Your task to perform on an android device: Search for sushi restaurants on Maps Image 0: 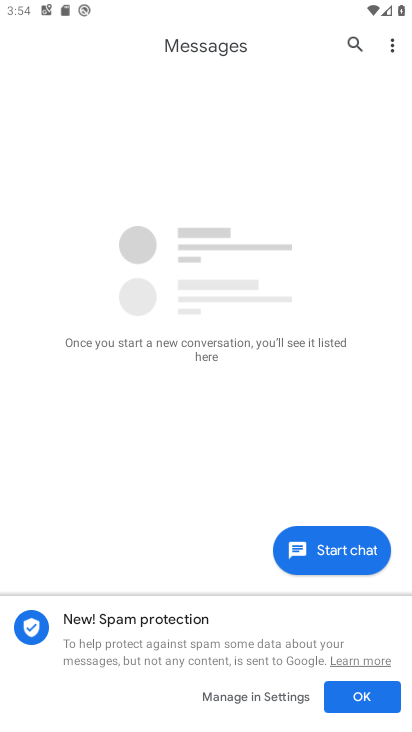
Step 0: press home button
Your task to perform on an android device: Search for sushi restaurants on Maps Image 1: 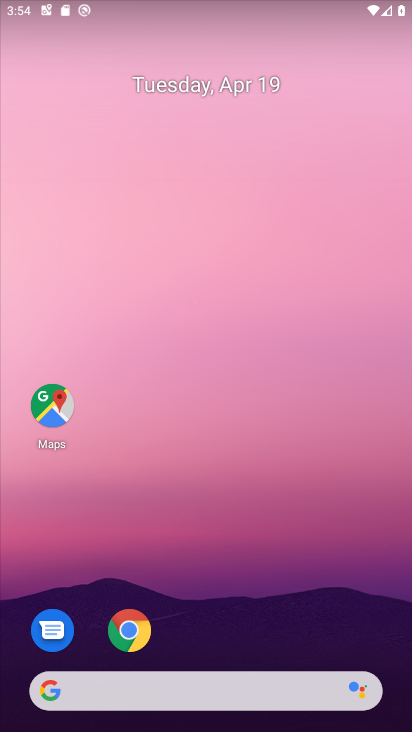
Step 1: click (40, 402)
Your task to perform on an android device: Search for sushi restaurants on Maps Image 2: 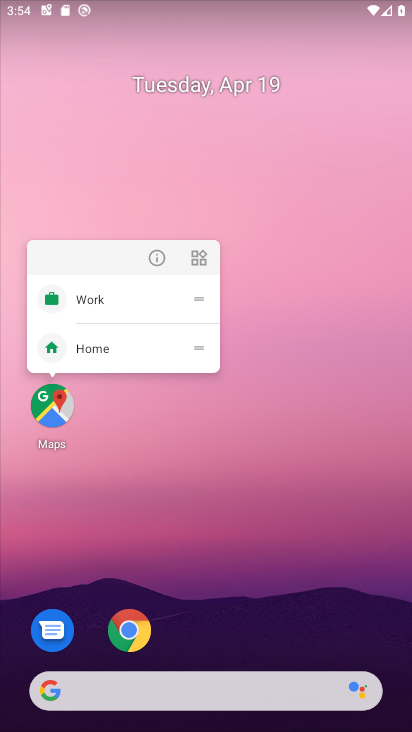
Step 2: click (45, 410)
Your task to perform on an android device: Search for sushi restaurants on Maps Image 3: 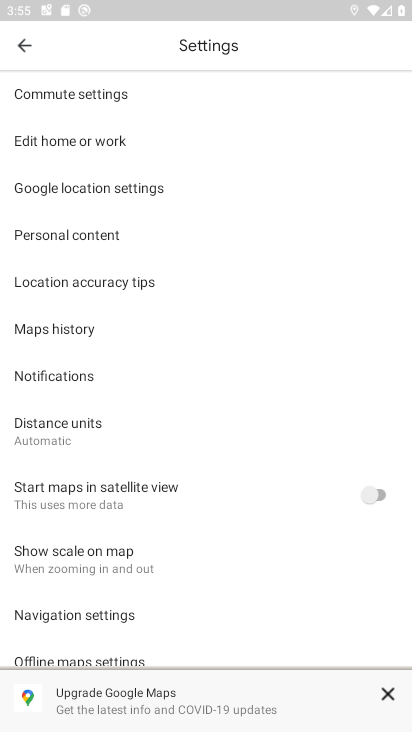
Step 3: press back button
Your task to perform on an android device: Search for sushi restaurants on Maps Image 4: 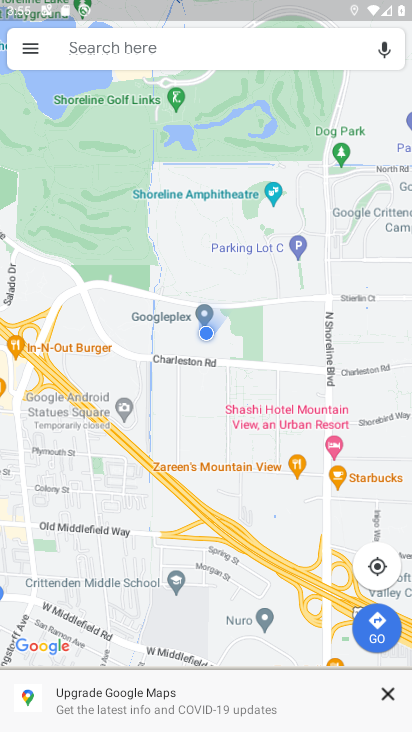
Step 4: click (104, 52)
Your task to perform on an android device: Search for sushi restaurants on Maps Image 5: 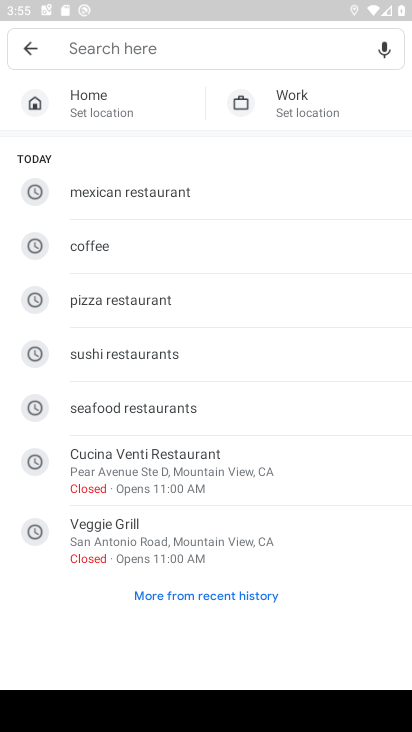
Step 5: click (153, 351)
Your task to perform on an android device: Search for sushi restaurants on Maps Image 6: 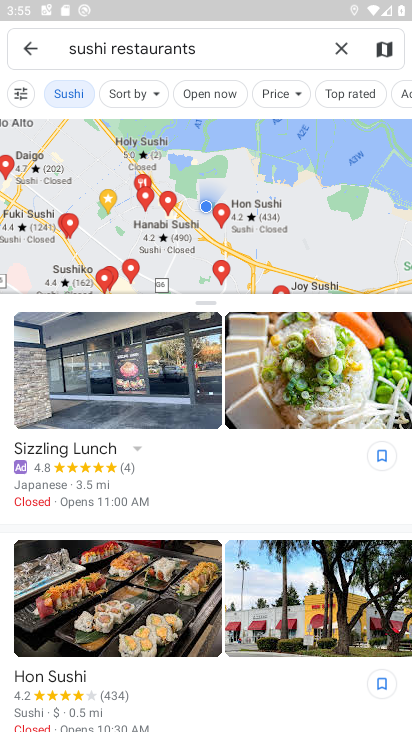
Step 6: task complete